Your task to perform on an android device: change the clock style Image 0: 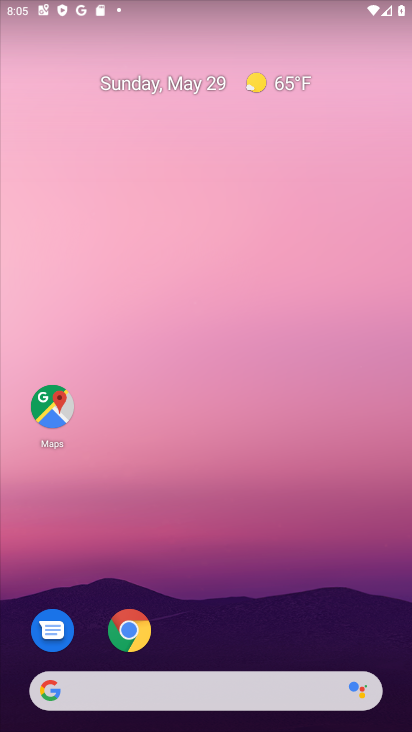
Step 0: drag from (210, 717) to (166, 112)
Your task to perform on an android device: change the clock style Image 1: 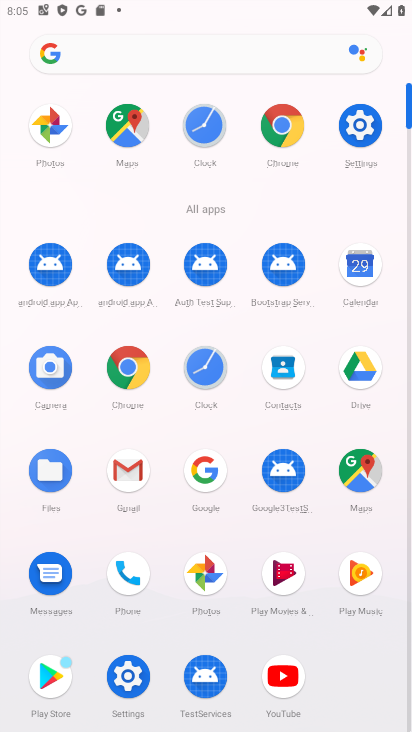
Step 1: click (199, 367)
Your task to perform on an android device: change the clock style Image 2: 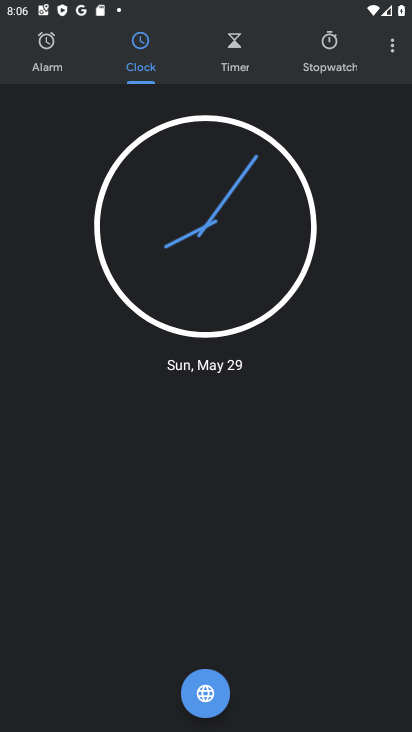
Step 2: click (394, 49)
Your task to perform on an android device: change the clock style Image 3: 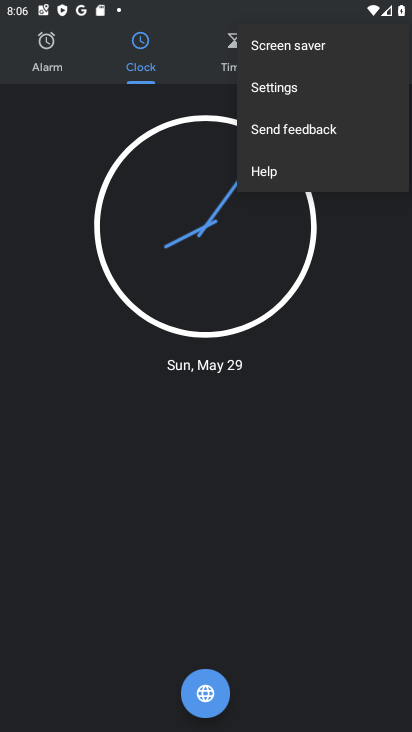
Step 3: click (271, 87)
Your task to perform on an android device: change the clock style Image 4: 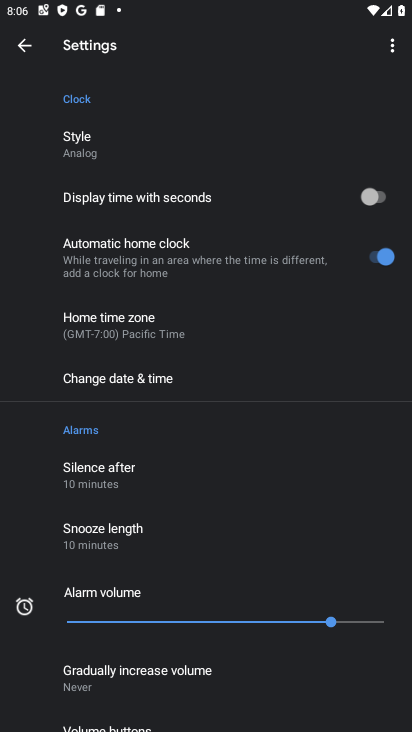
Step 4: click (83, 151)
Your task to perform on an android device: change the clock style Image 5: 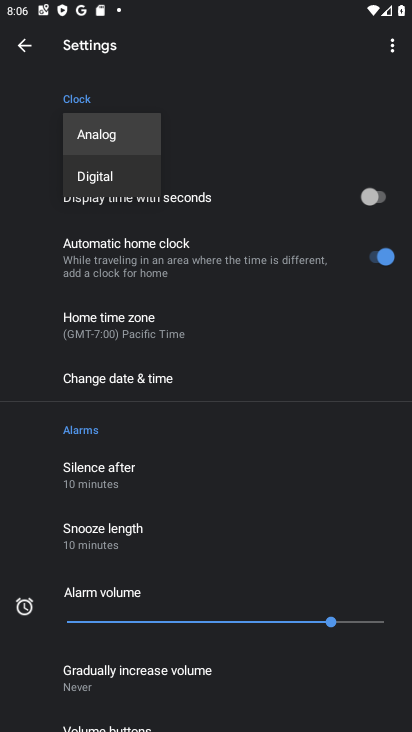
Step 5: click (99, 181)
Your task to perform on an android device: change the clock style Image 6: 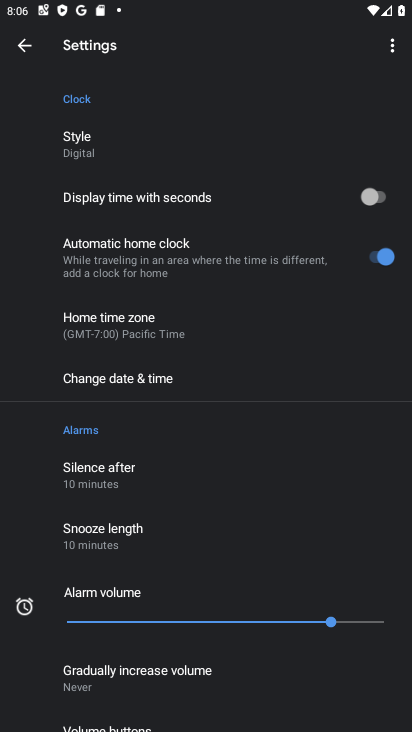
Step 6: task complete